Your task to perform on an android device: Open sound settings Image 0: 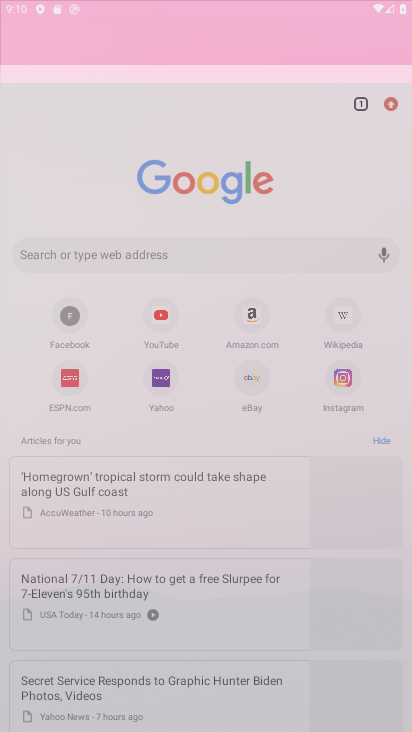
Step 0: press home button
Your task to perform on an android device: Open sound settings Image 1: 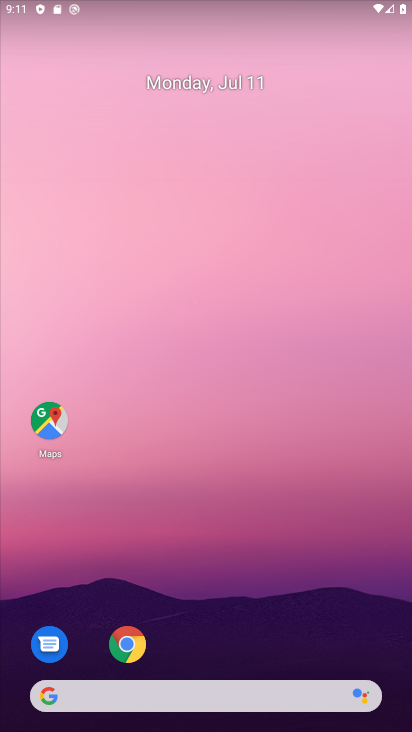
Step 1: drag from (225, 661) to (223, 49)
Your task to perform on an android device: Open sound settings Image 2: 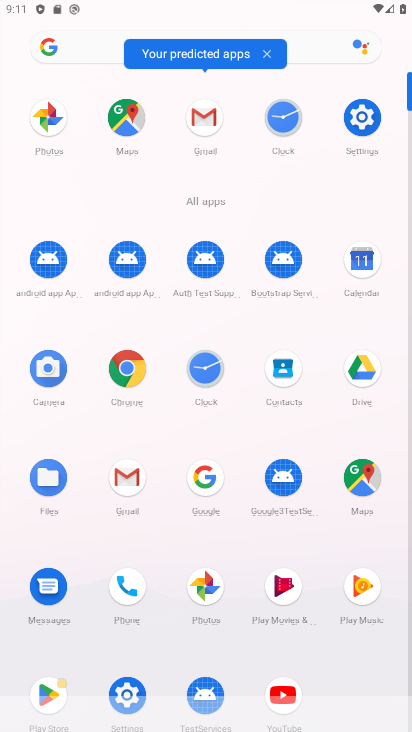
Step 2: click (362, 116)
Your task to perform on an android device: Open sound settings Image 3: 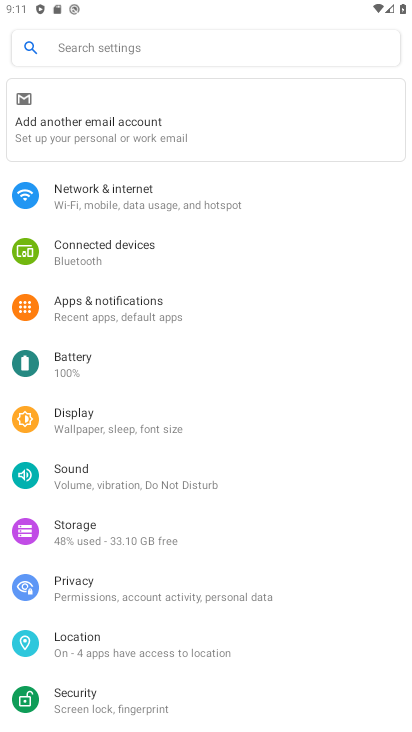
Step 3: click (97, 466)
Your task to perform on an android device: Open sound settings Image 4: 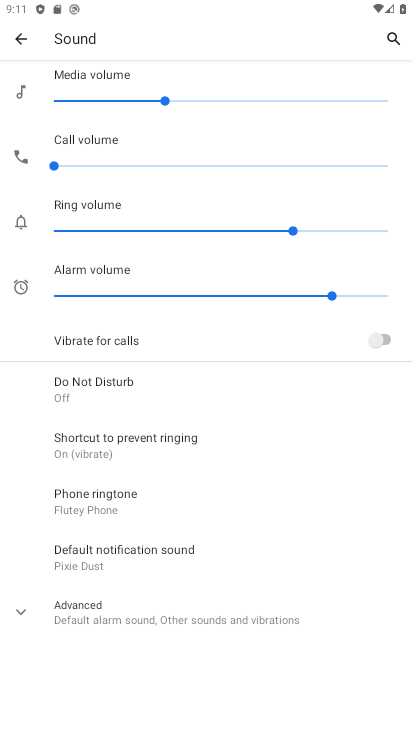
Step 4: click (25, 602)
Your task to perform on an android device: Open sound settings Image 5: 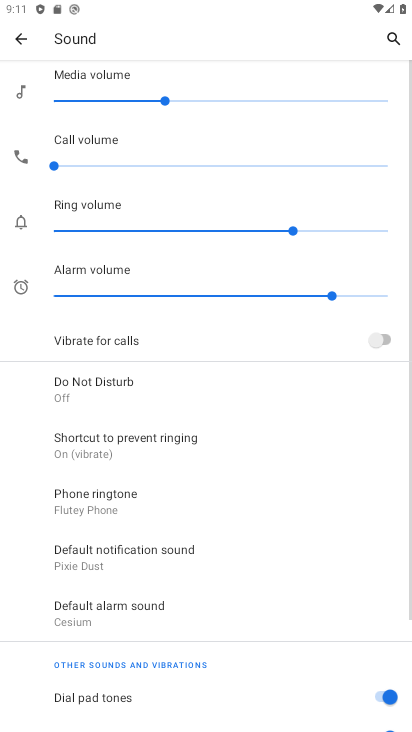
Step 5: task complete